Your task to perform on an android device: change your default location settings in chrome Image 0: 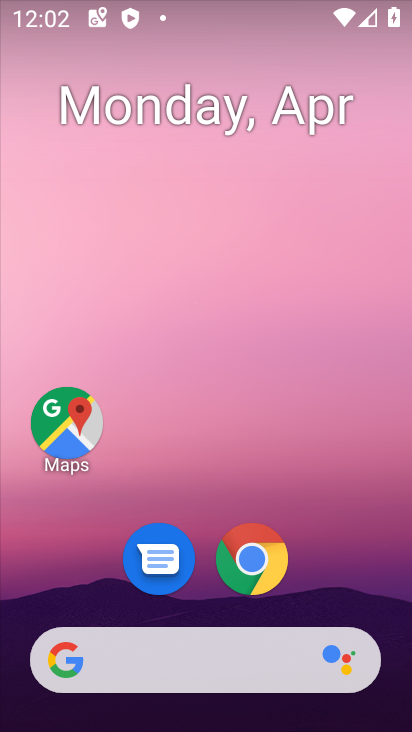
Step 0: click (252, 580)
Your task to perform on an android device: change your default location settings in chrome Image 1: 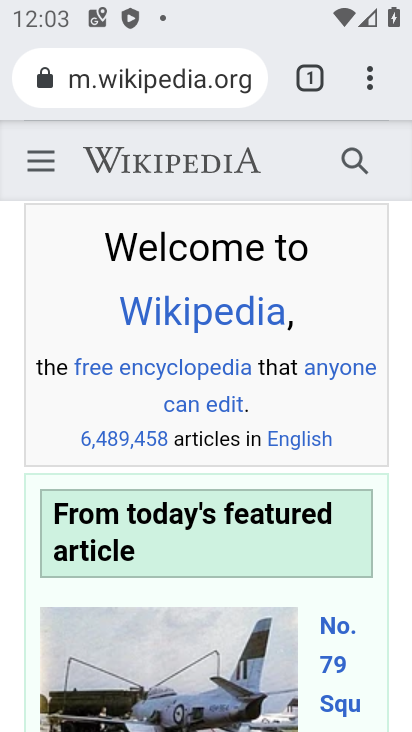
Step 1: click (364, 76)
Your task to perform on an android device: change your default location settings in chrome Image 2: 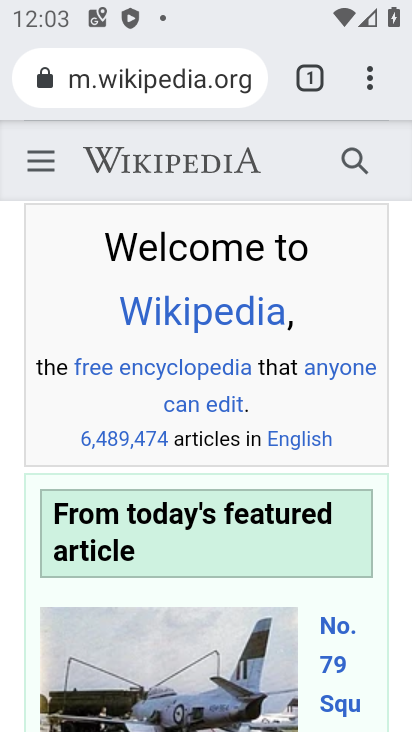
Step 2: click (368, 62)
Your task to perform on an android device: change your default location settings in chrome Image 3: 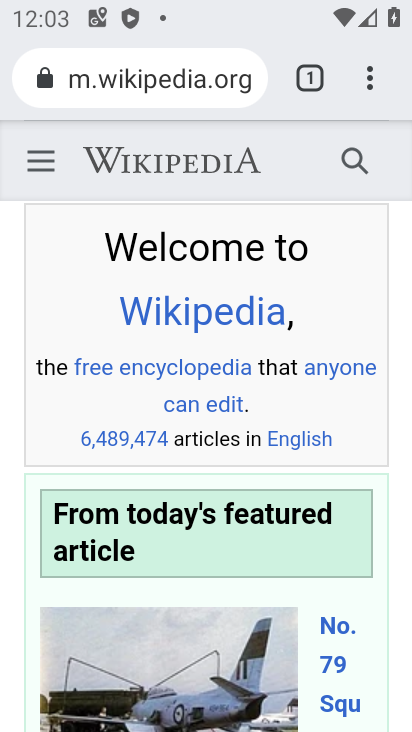
Step 3: click (373, 84)
Your task to perform on an android device: change your default location settings in chrome Image 4: 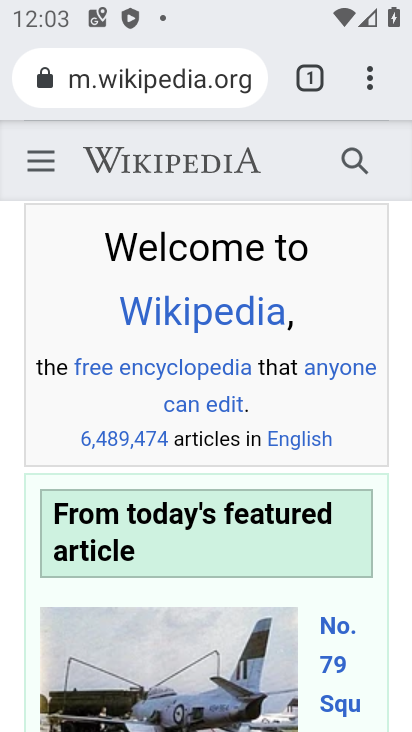
Step 4: click (373, 84)
Your task to perform on an android device: change your default location settings in chrome Image 5: 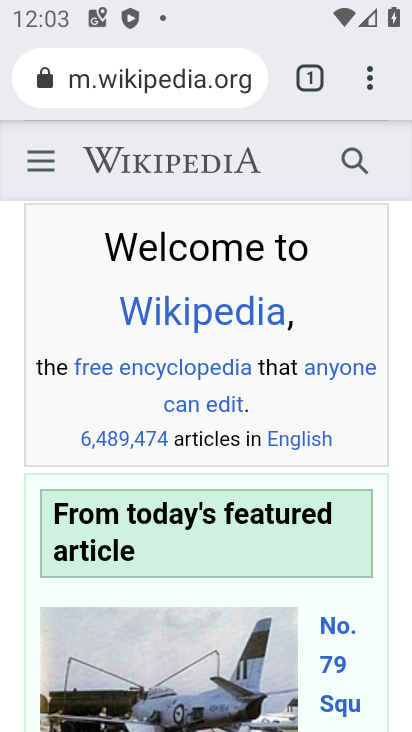
Step 5: click (373, 84)
Your task to perform on an android device: change your default location settings in chrome Image 6: 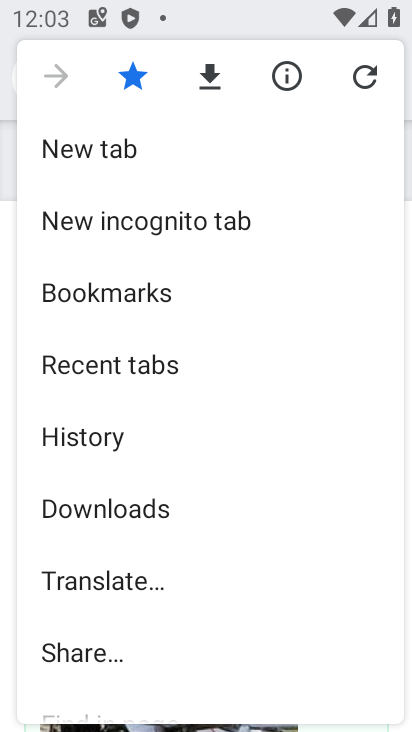
Step 6: drag from (154, 678) to (184, 449)
Your task to perform on an android device: change your default location settings in chrome Image 7: 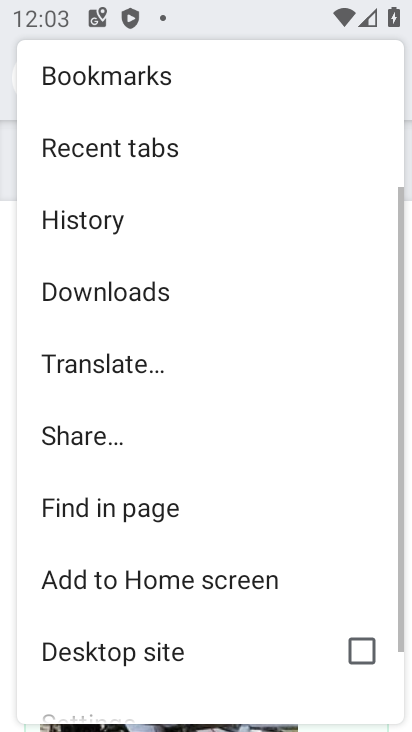
Step 7: drag from (175, 613) to (204, 308)
Your task to perform on an android device: change your default location settings in chrome Image 8: 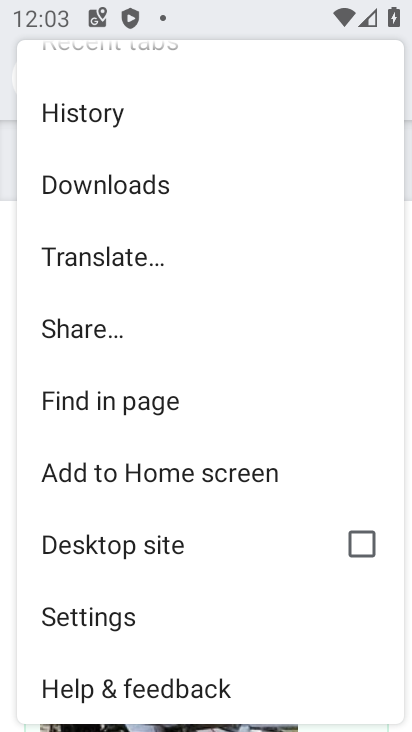
Step 8: click (163, 598)
Your task to perform on an android device: change your default location settings in chrome Image 9: 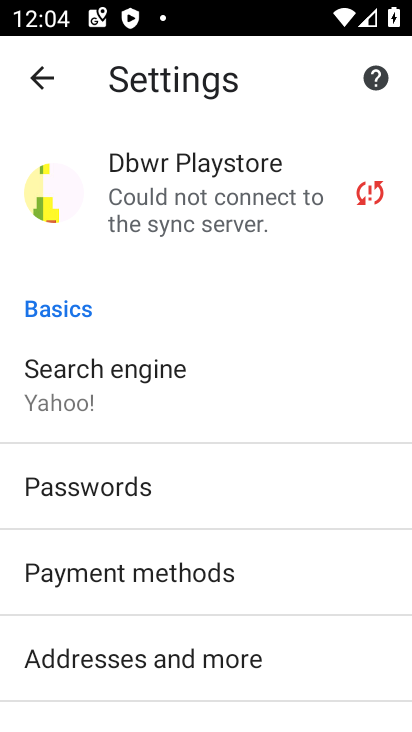
Step 9: click (282, 636)
Your task to perform on an android device: change your default location settings in chrome Image 10: 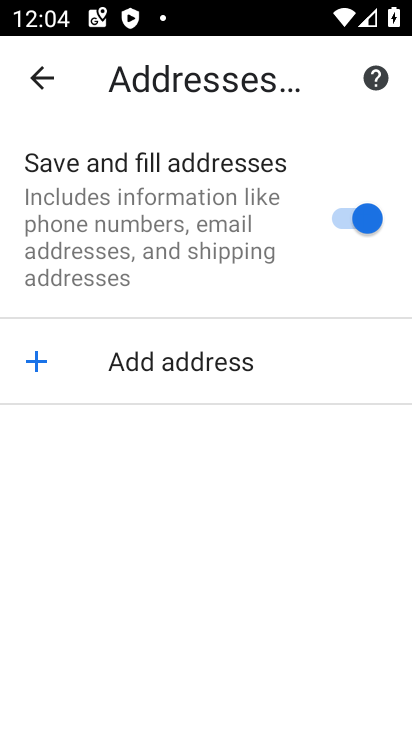
Step 10: task complete